Your task to perform on an android device: turn on priority inbox in the gmail app Image 0: 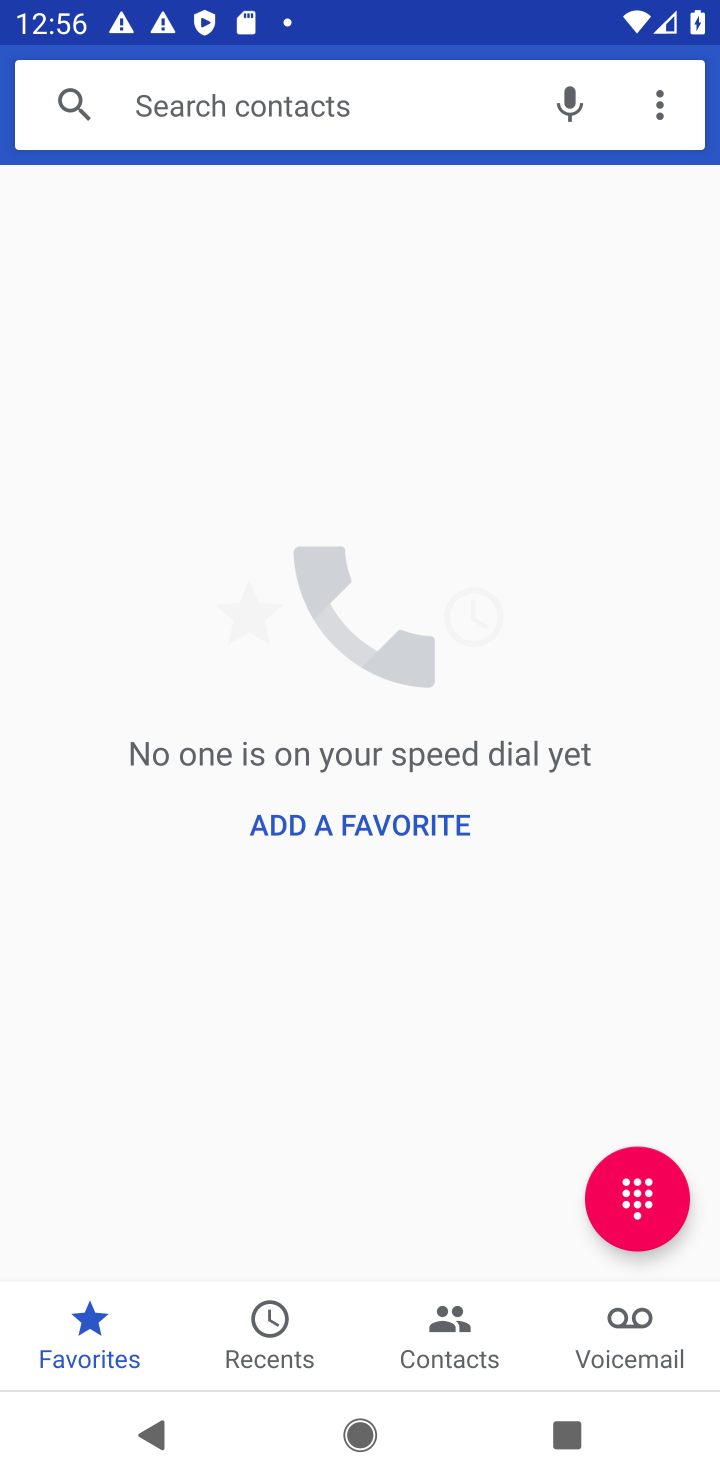
Step 0: press home button
Your task to perform on an android device: turn on priority inbox in the gmail app Image 1: 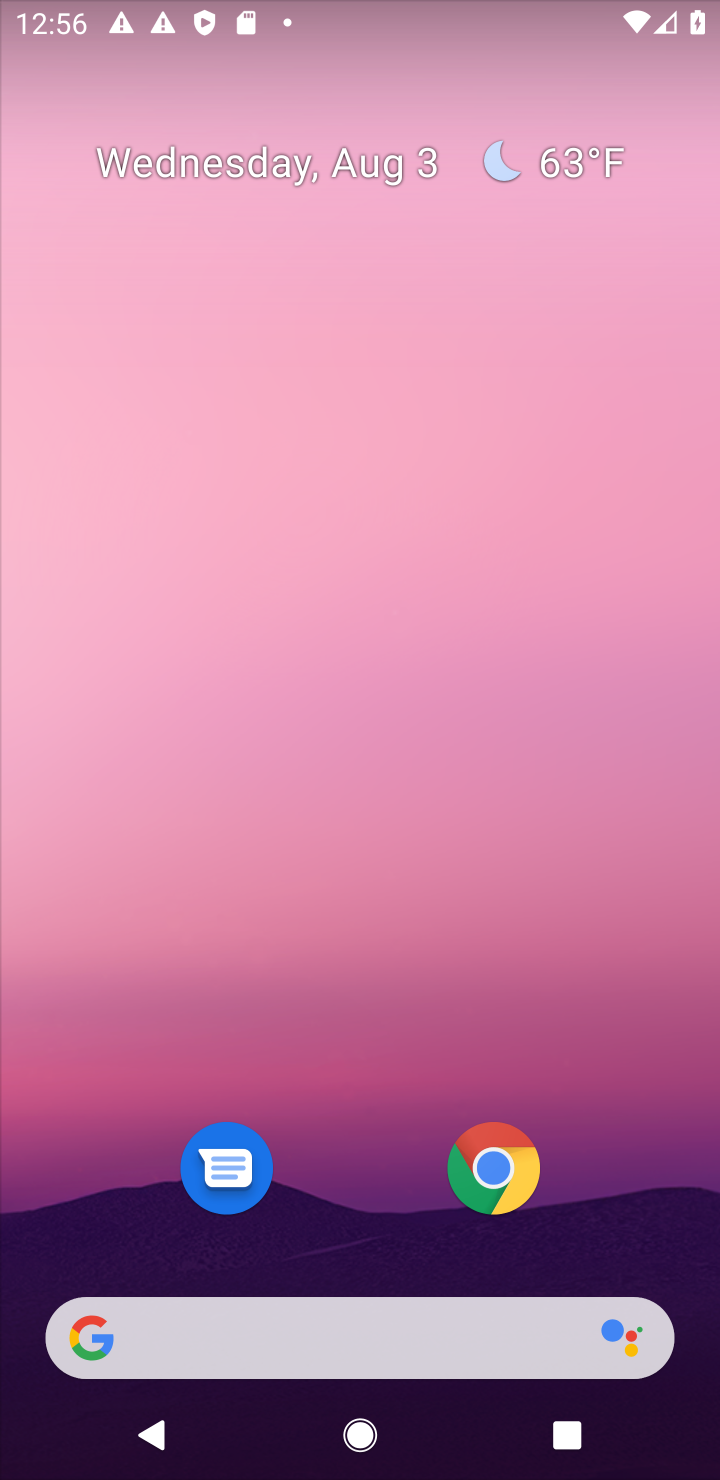
Step 1: drag from (635, 1053) to (609, 100)
Your task to perform on an android device: turn on priority inbox in the gmail app Image 2: 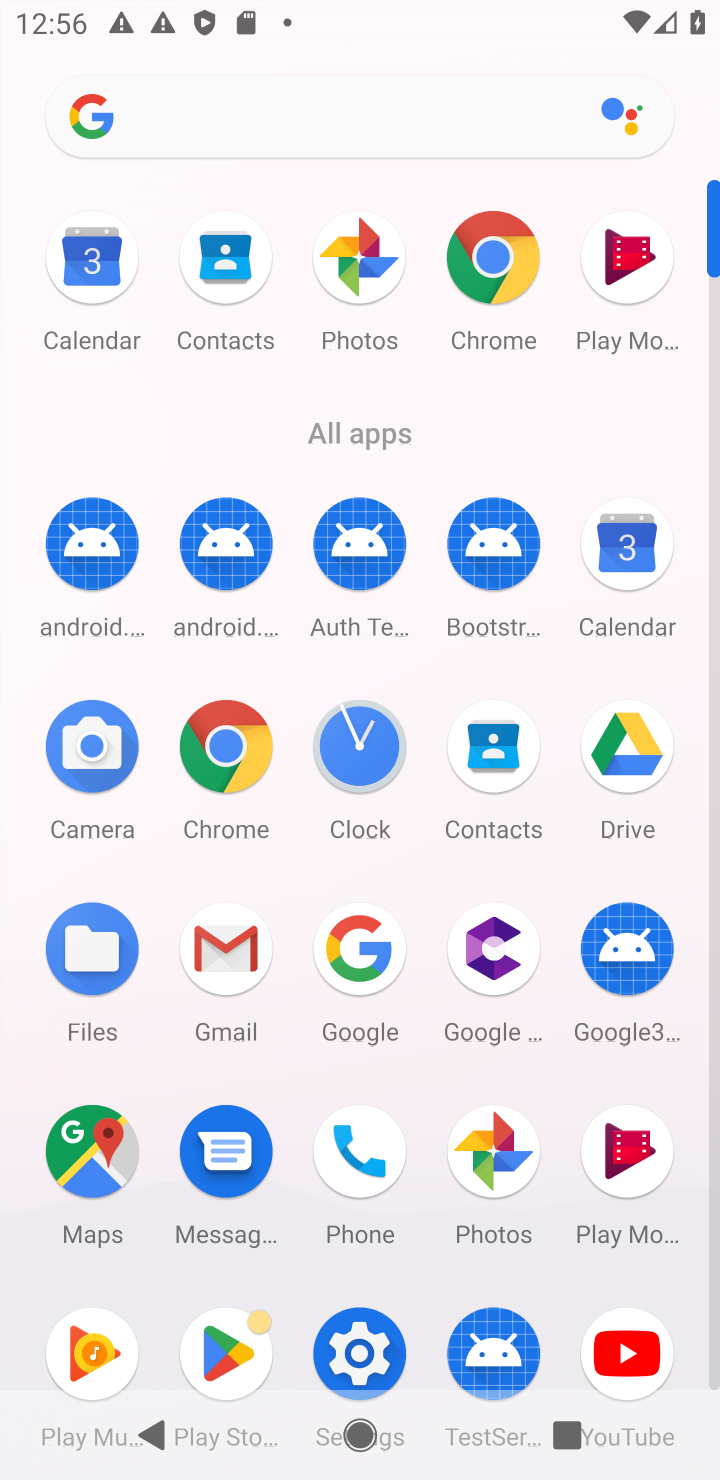
Step 2: click (220, 946)
Your task to perform on an android device: turn on priority inbox in the gmail app Image 3: 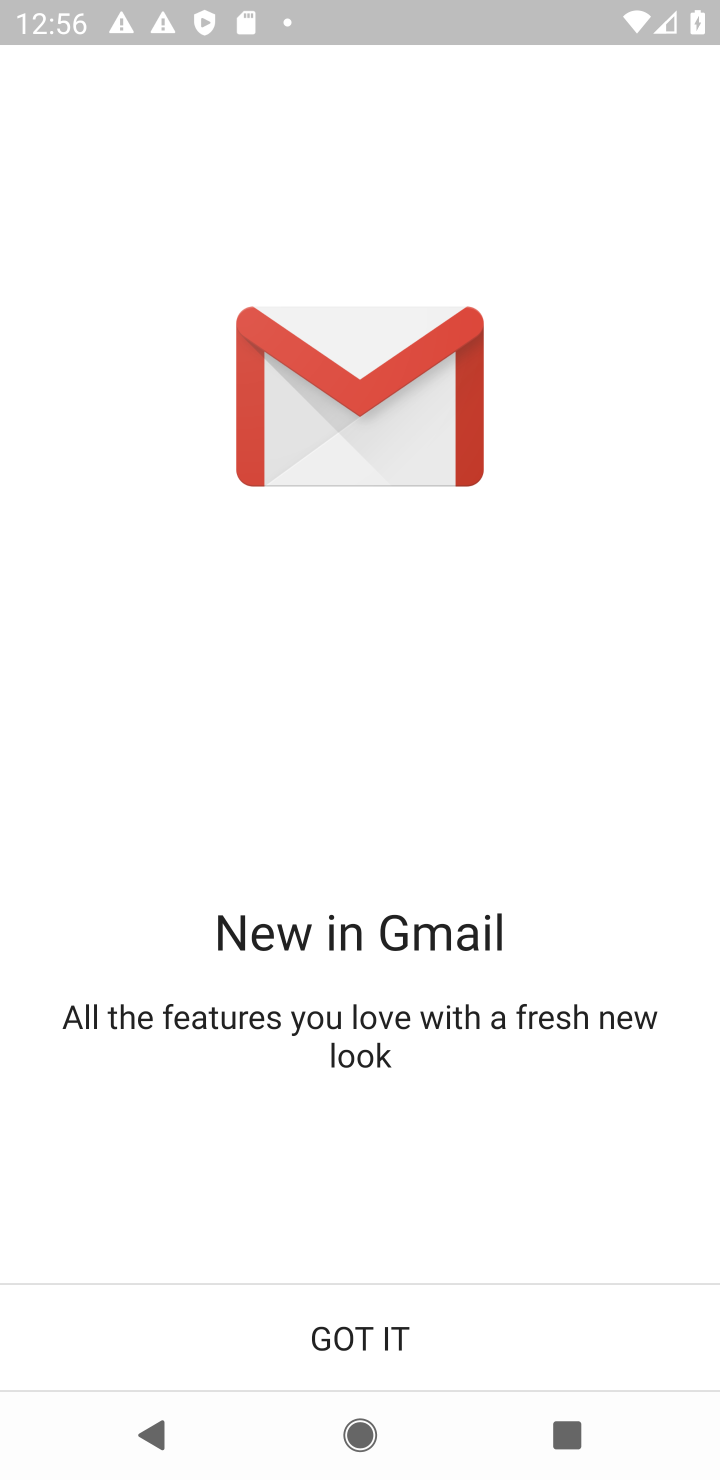
Step 3: click (388, 1335)
Your task to perform on an android device: turn on priority inbox in the gmail app Image 4: 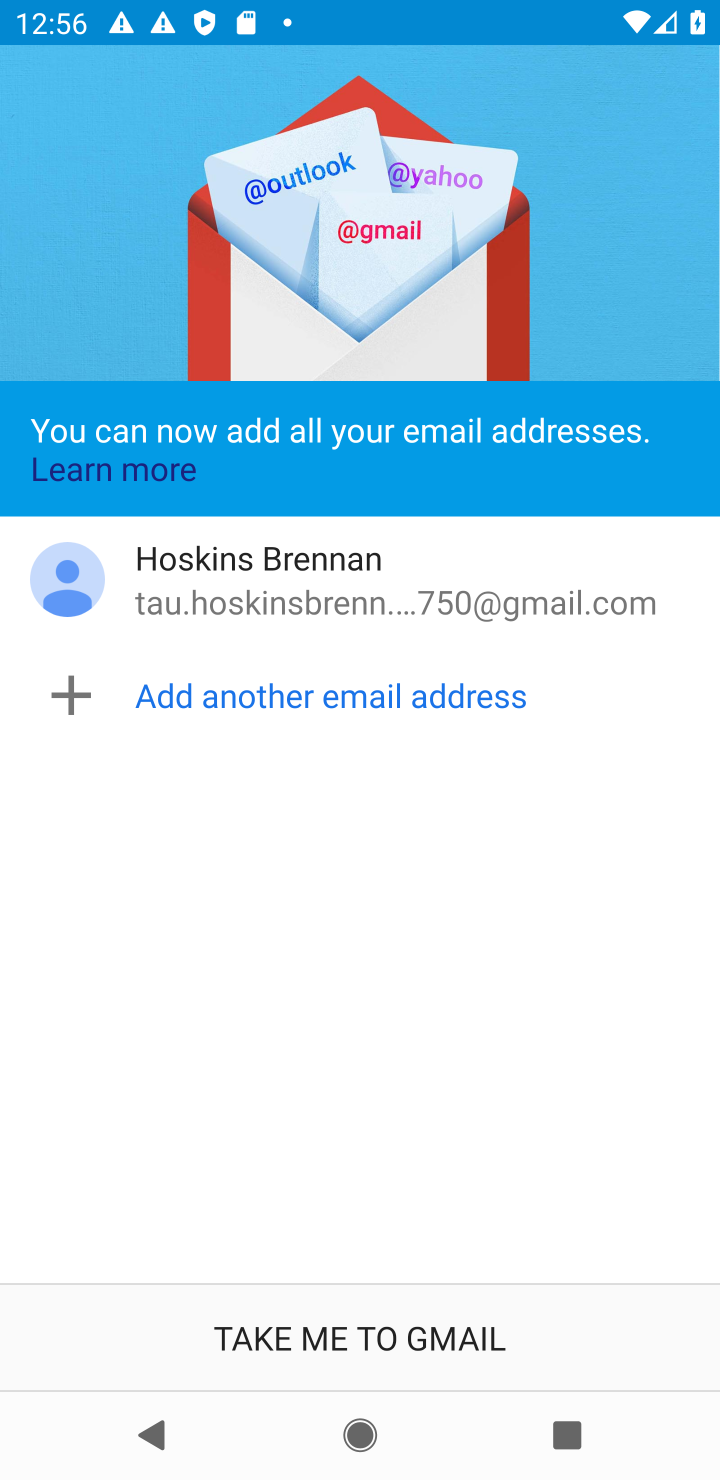
Step 4: click (422, 1328)
Your task to perform on an android device: turn on priority inbox in the gmail app Image 5: 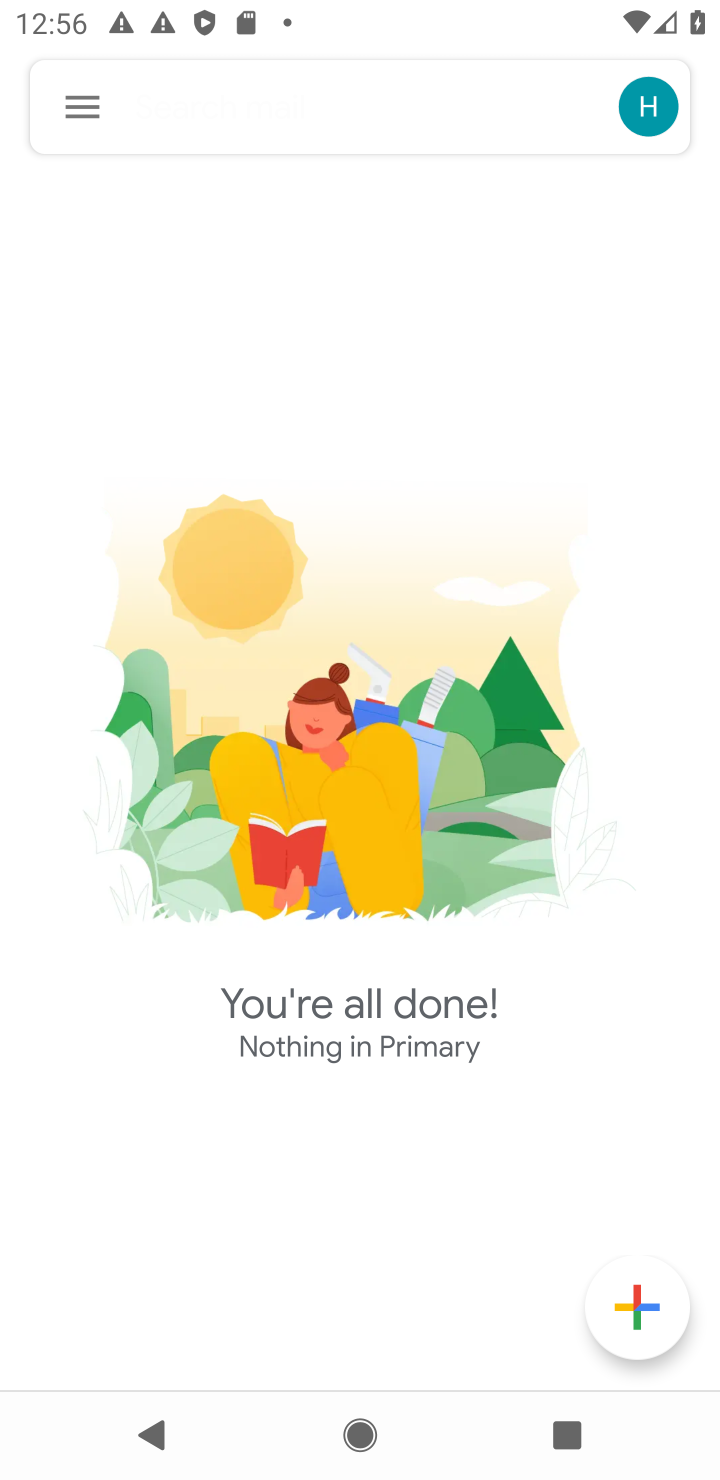
Step 5: click (79, 106)
Your task to perform on an android device: turn on priority inbox in the gmail app Image 6: 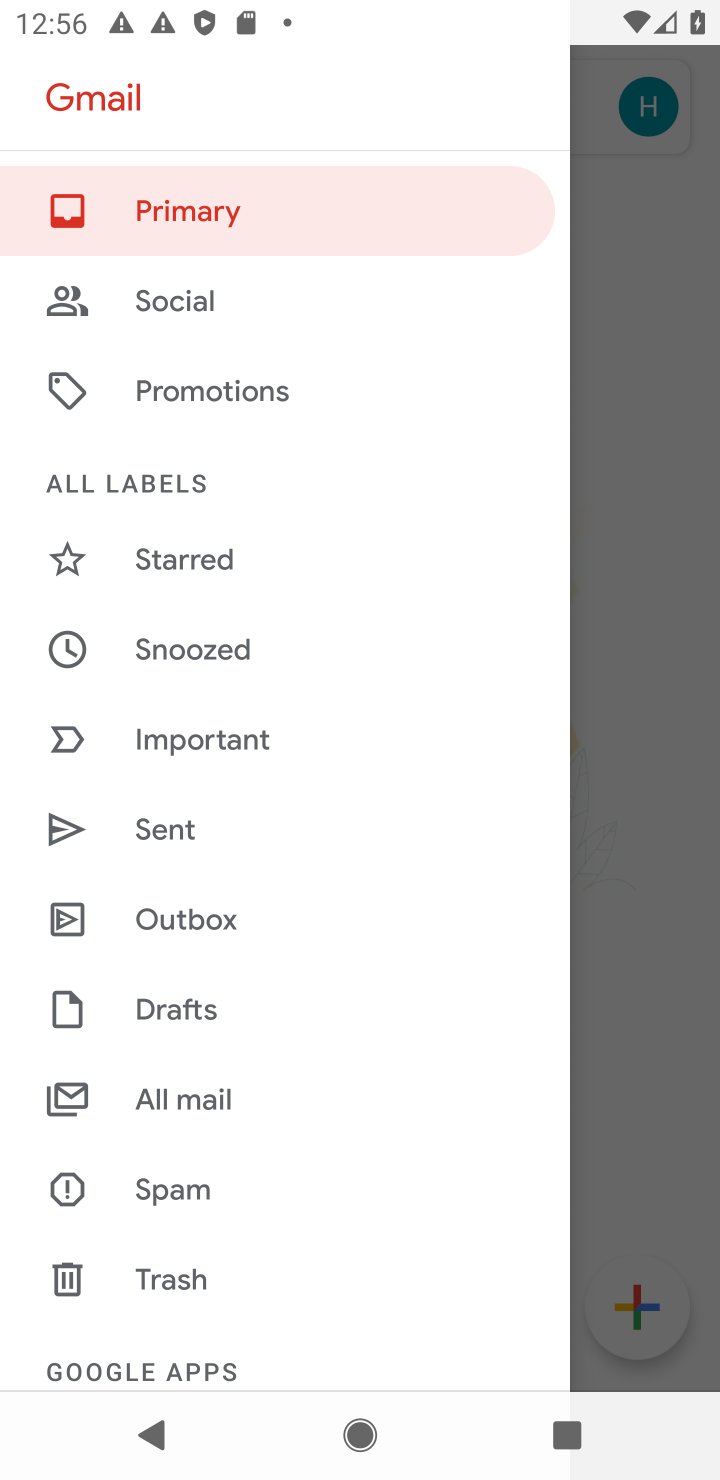
Step 6: drag from (337, 1283) to (353, 509)
Your task to perform on an android device: turn on priority inbox in the gmail app Image 7: 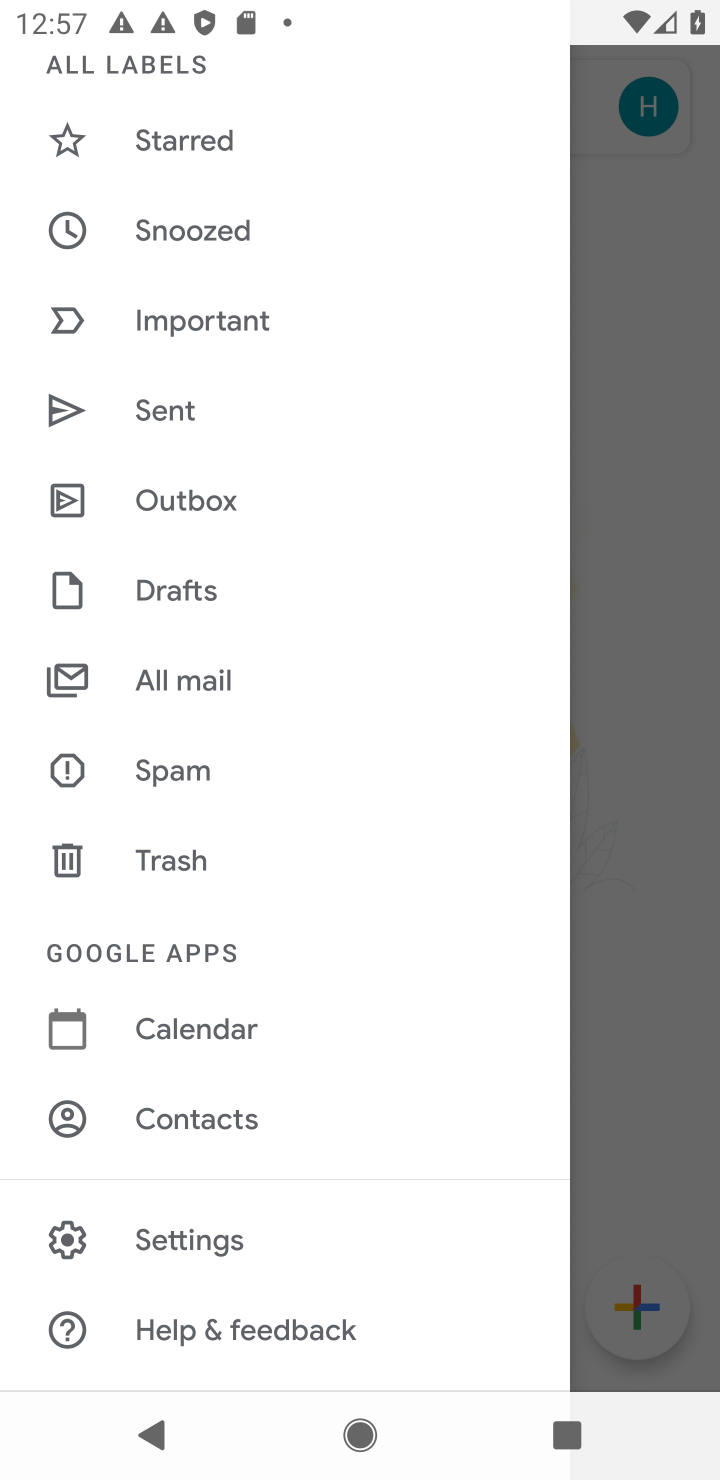
Step 7: click (155, 1243)
Your task to perform on an android device: turn on priority inbox in the gmail app Image 8: 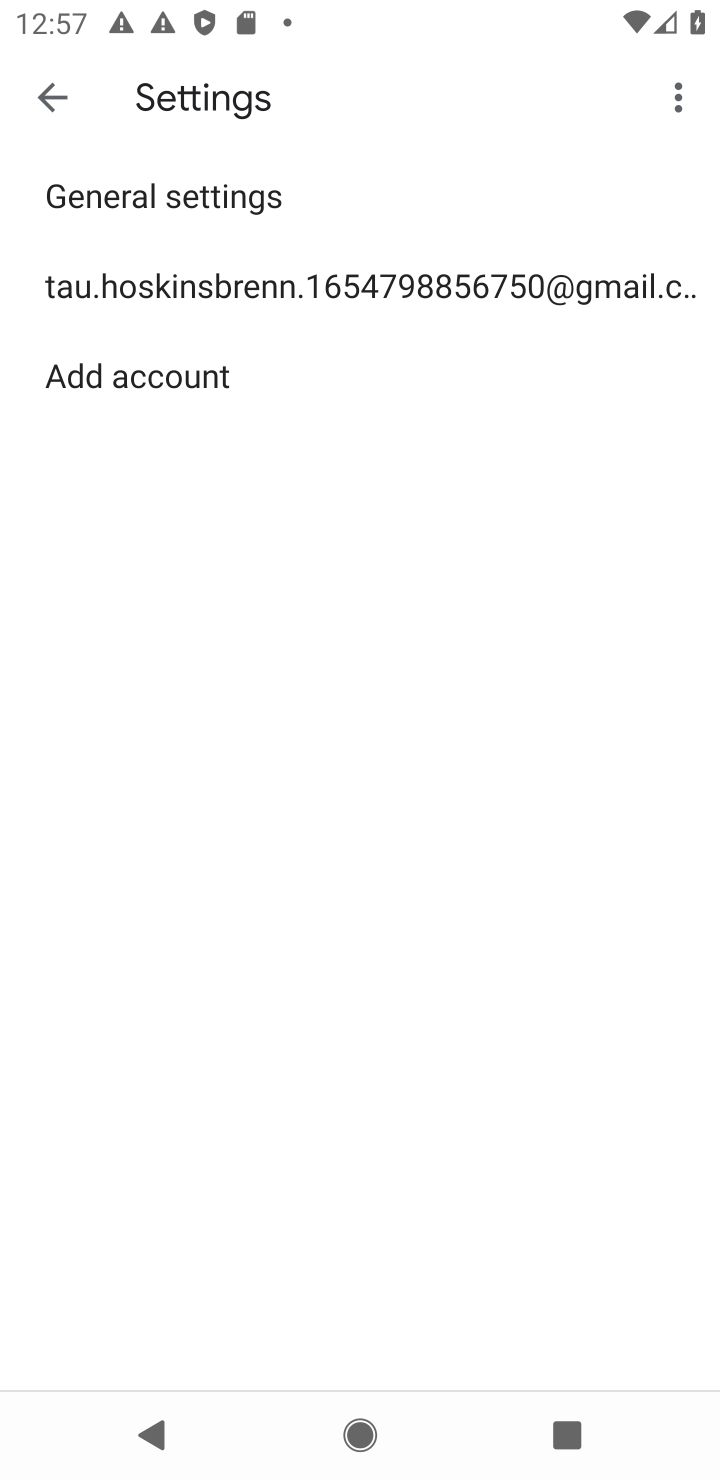
Step 8: click (266, 278)
Your task to perform on an android device: turn on priority inbox in the gmail app Image 9: 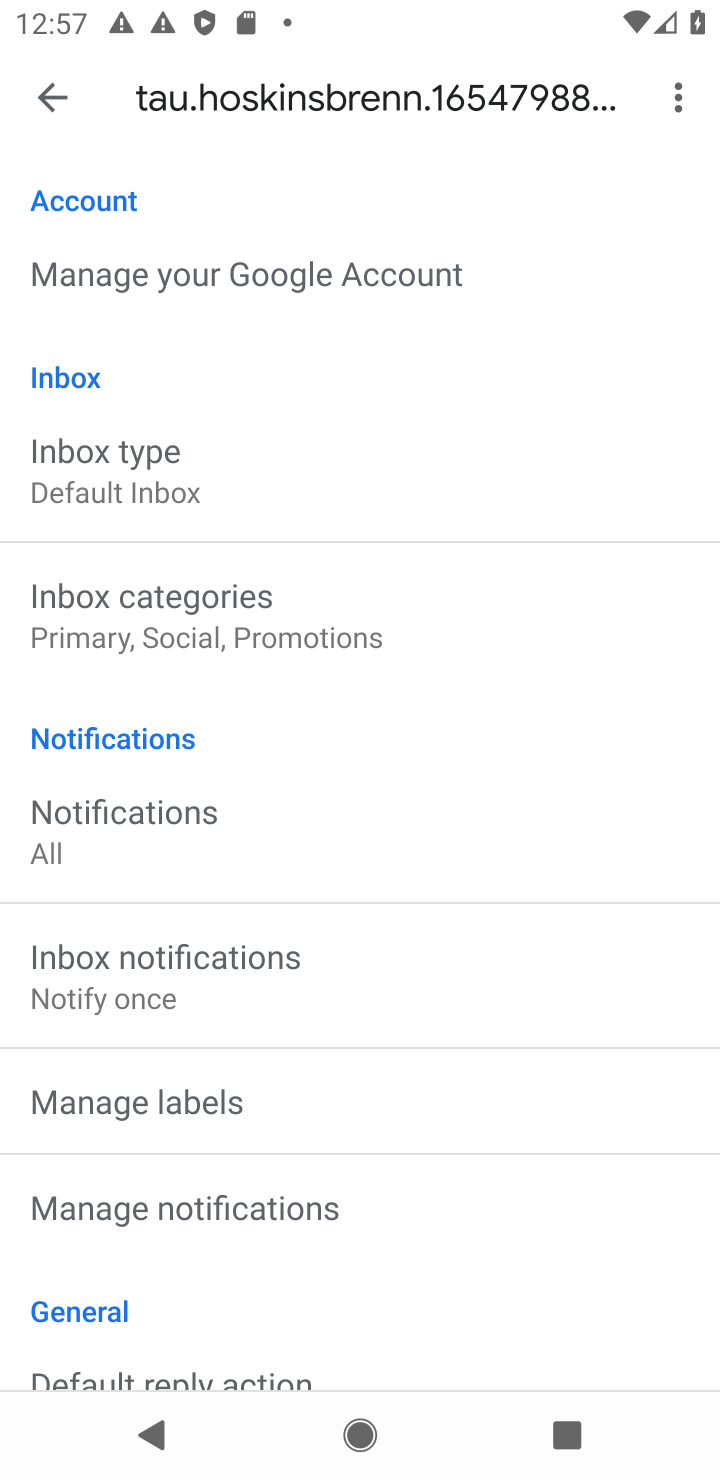
Step 9: click (64, 463)
Your task to perform on an android device: turn on priority inbox in the gmail app Image 10: 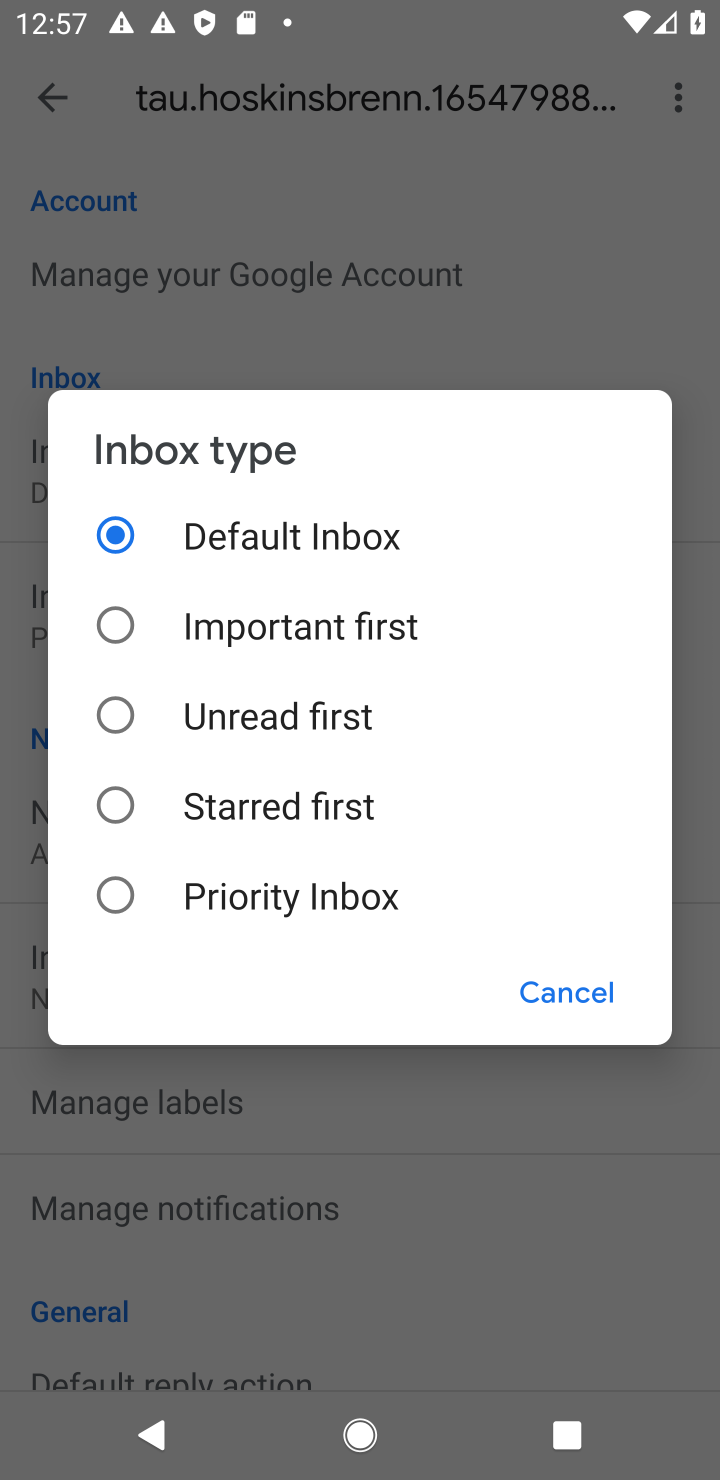
Step 10: click (114, 896)
Your task to perform on an android device: turn on priority inbox in the gmail app Image 11: 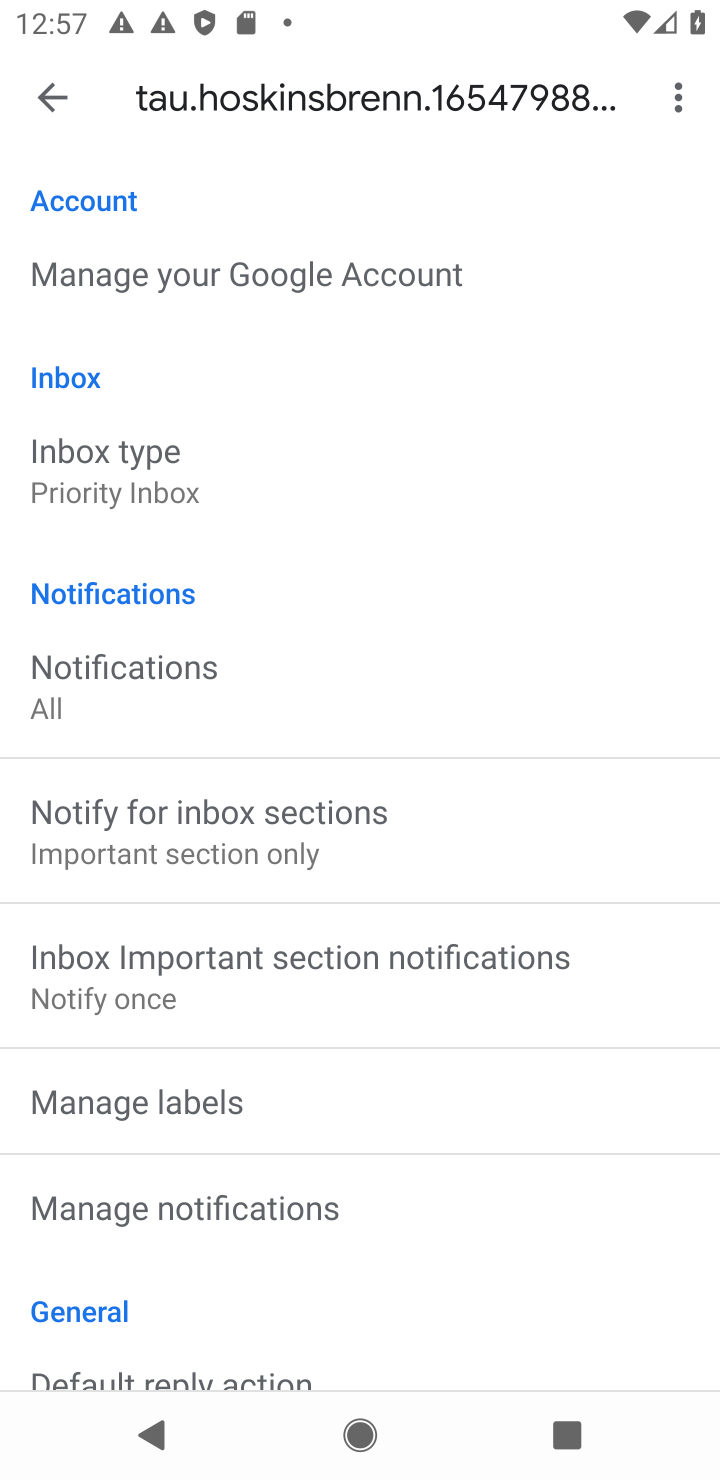
Step 11: task complete